Your task to perform on an android device: Go to battery settings Image 0: 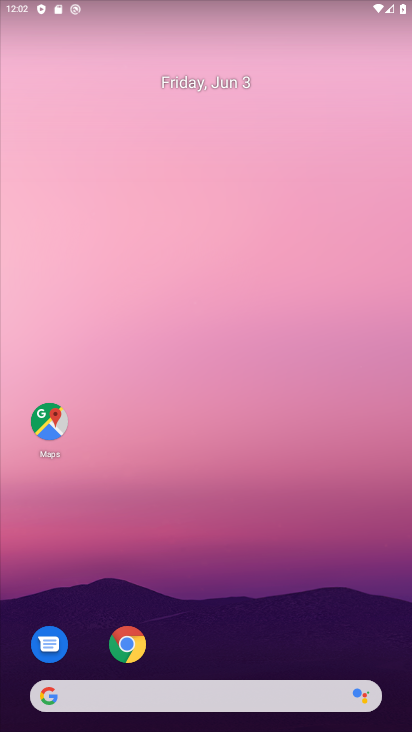
Step 0: drag from (210, 484) to (189, 24)
Your task to perform on an android device: Go to battery settings Image 1: 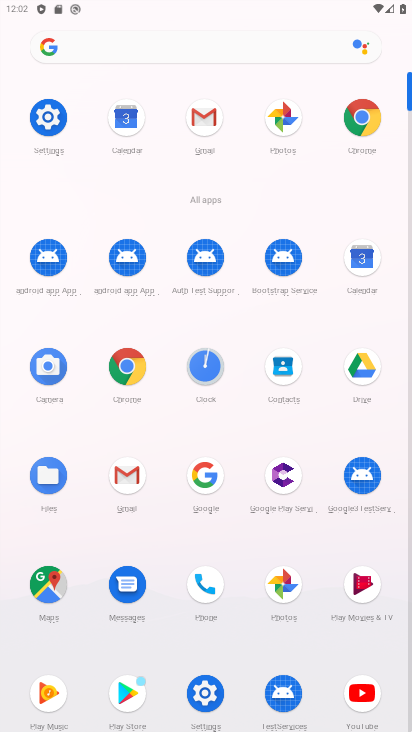
Step 1: click (48, 123)
Your task to perform on an android device: Go to battery settings Image 2: 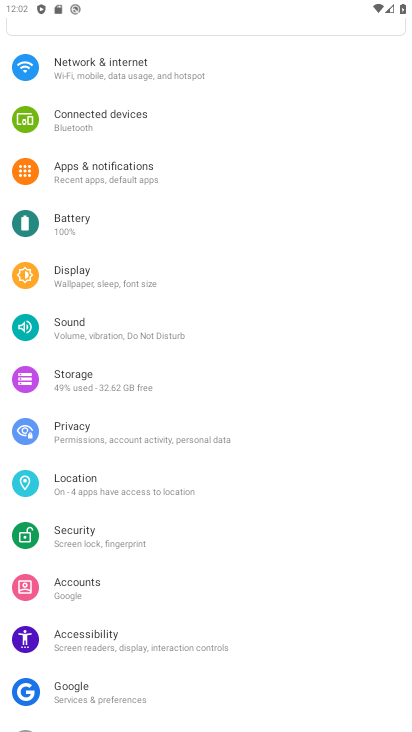
Step 2: click (64, 216)
Your task to perform on an android device: Go to battery settings Image 3: 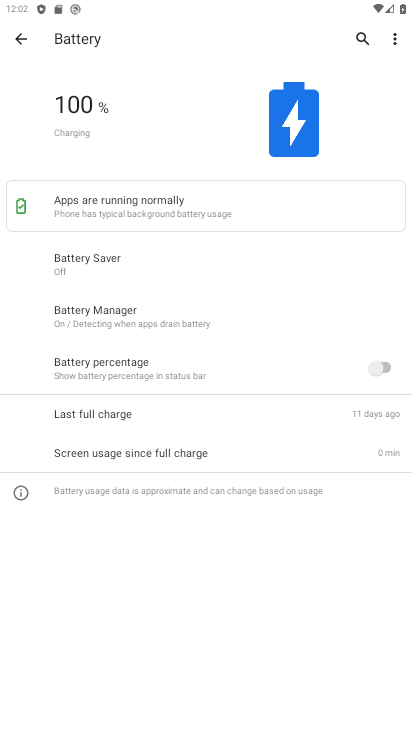
Step 3: task complete